Your task to perform on an android device: see tabs open on other devices in the chrome app Image 0: 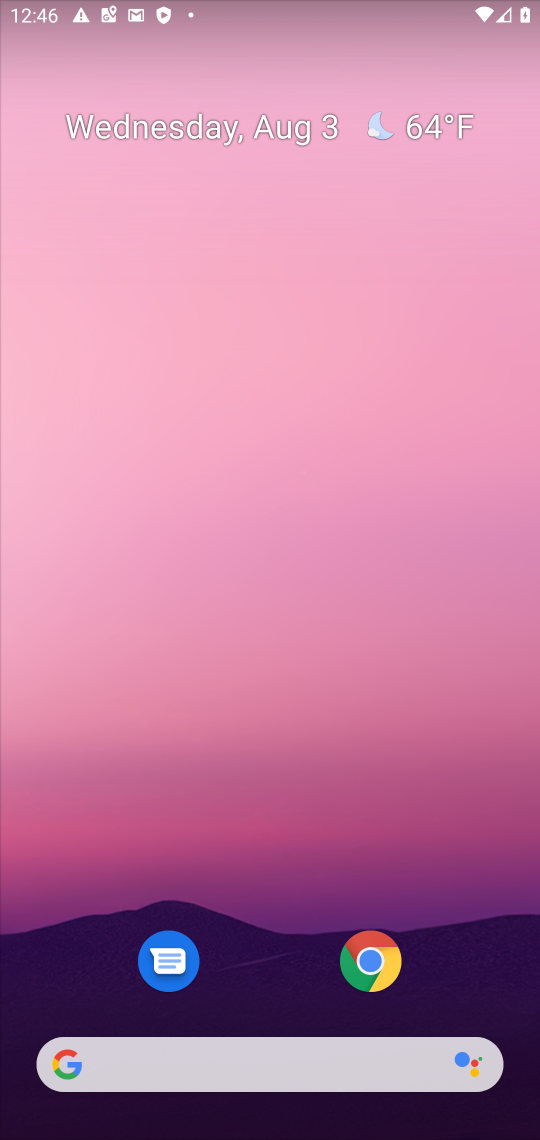
Step 0: click (378, 958)
Your task to perform on an android device: see tabs open on other devices in the chrome app Image 1: 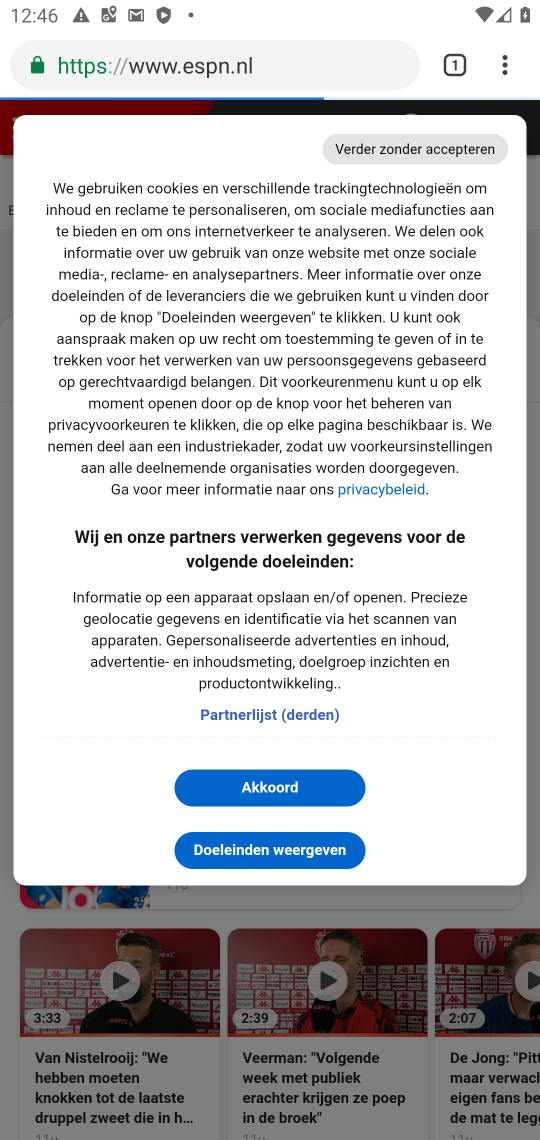
Step 1: drag from (503, 65) to (315, 326)
Your task to perform on an android device: see tabs open on other devices in the chrome app Image 2: 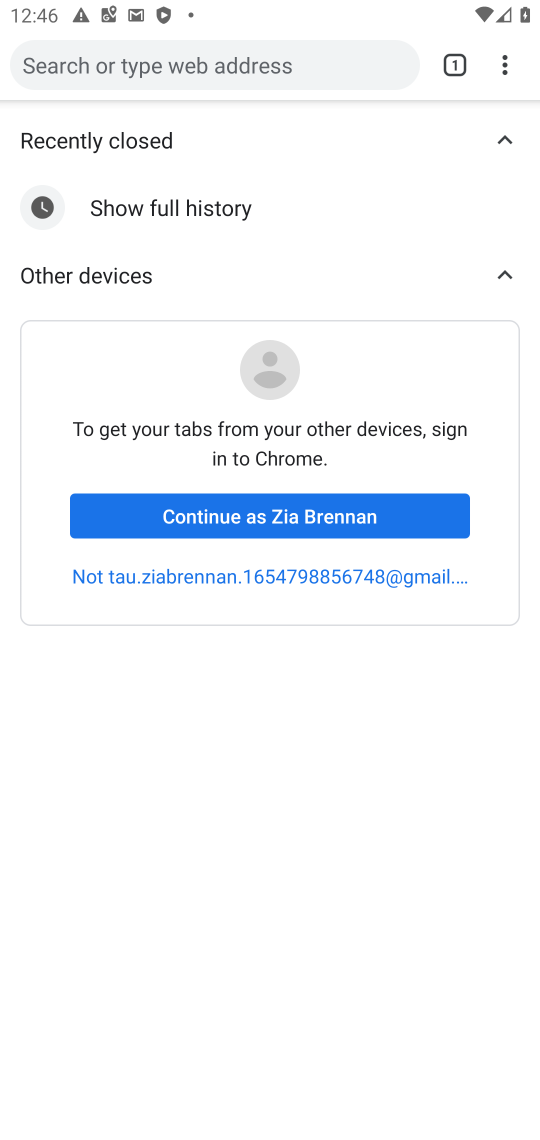
Step 2: click (238, 515)
Your task to perform on an android device: see tabs open on other devices in the chrome app Image 3: 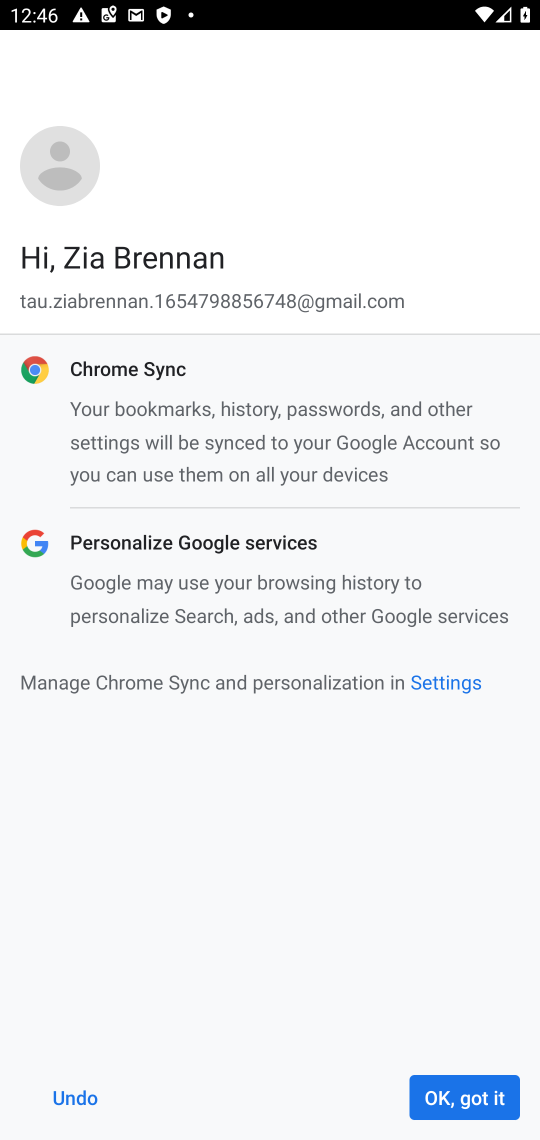
Step 3: click (433, 1096)
Your task to perform on an android device: see tabs open on other devices in the chrome app Image 4: 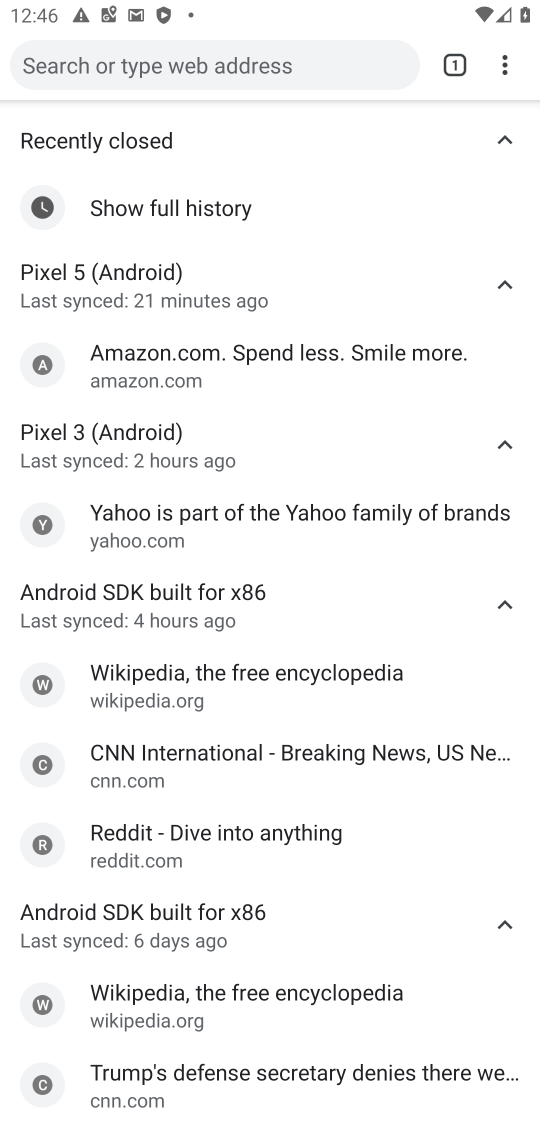
Step 4: task complete